Your task to perform on an android device: turn off data saver in the chrome app Image 0: 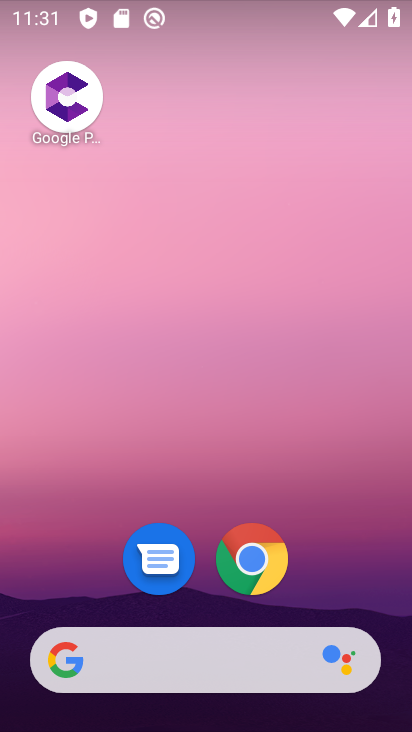
Step 0: click (253, 563)
Your task to perform on an android device: turn off data saver in the chrome app Image 1: 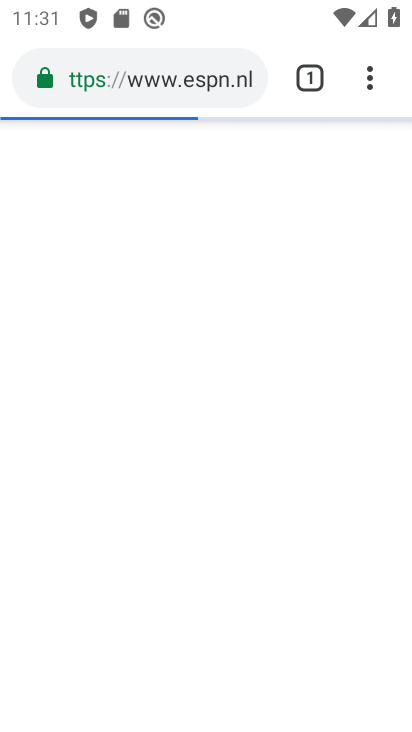
Step 1: drag from (372, 68) to (105, 609)
Your task to perform on an android device: turn off data saver in the chrome app Image 2: 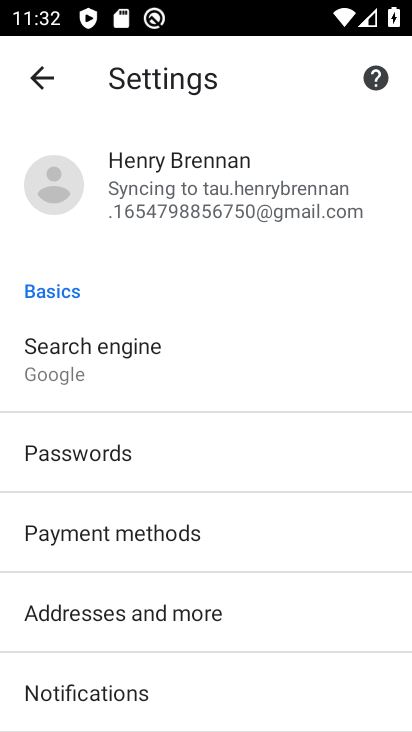
Step 2: drag from (157, 645) to (245, 150)
Your task to perform on an android device: turn off data saver in the chrome app Image 3: 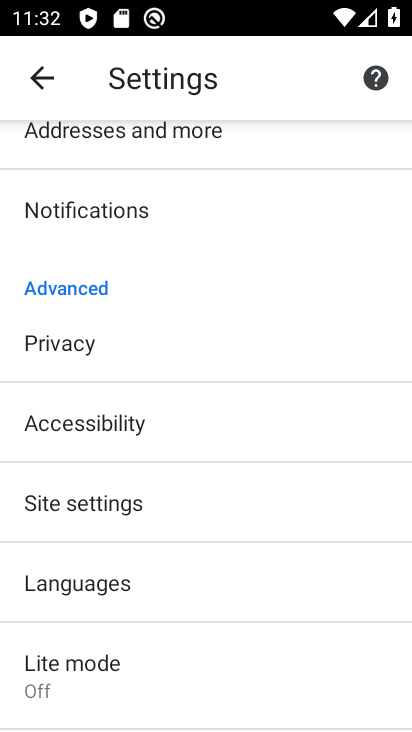
Step 3: drag from (112, 623) to (197, 312)
Your task to perform on an android device: turn off data saver in the chrome app Image 4: 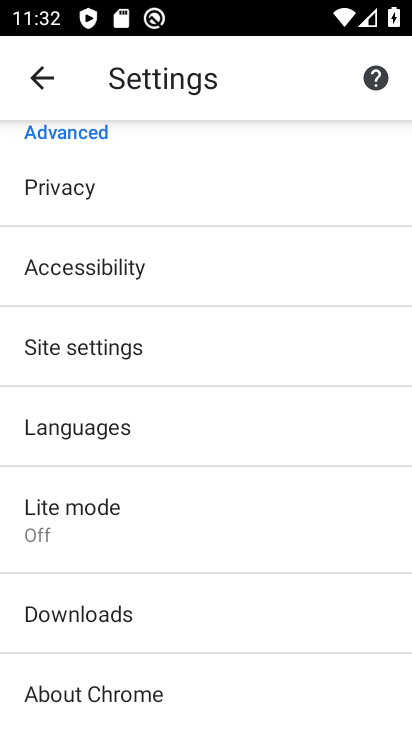
Step 4: click (52, 526)
Your task to perform on an android device: turn off data saver in the chrome app Image 5: 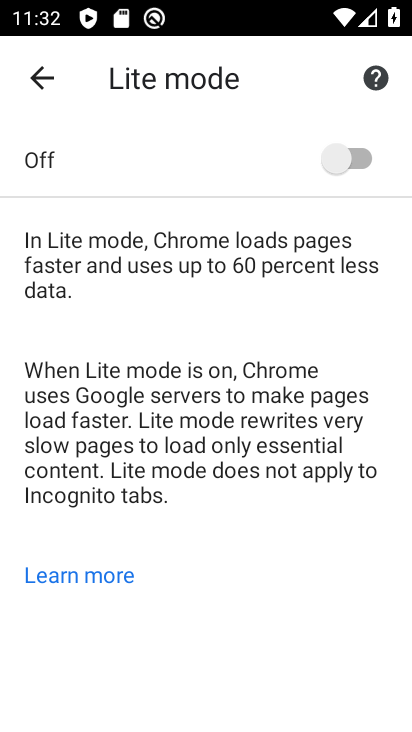
Step 5: task complete